Your task to perform on an android device: turn on bluetooth scan Image 0: 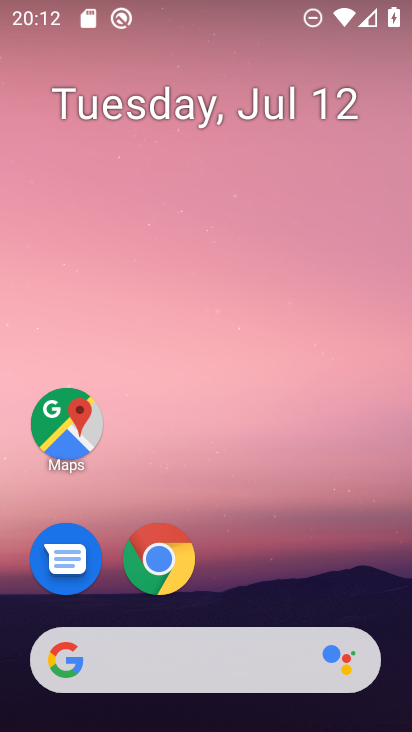
Step 0: drag from (390, 583) to (380, 183)
Your task to perform on an android device: turn on bluetooth scan Image 1: 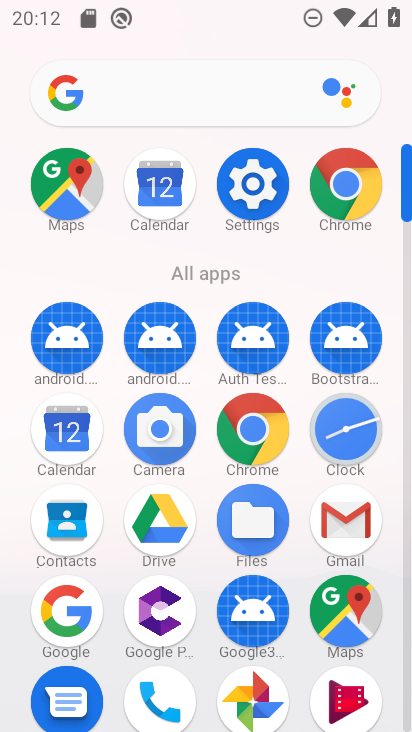
Step 1: click (262, 193)
Your task to perform on an android device: turn on bluetooth scan Image 2: 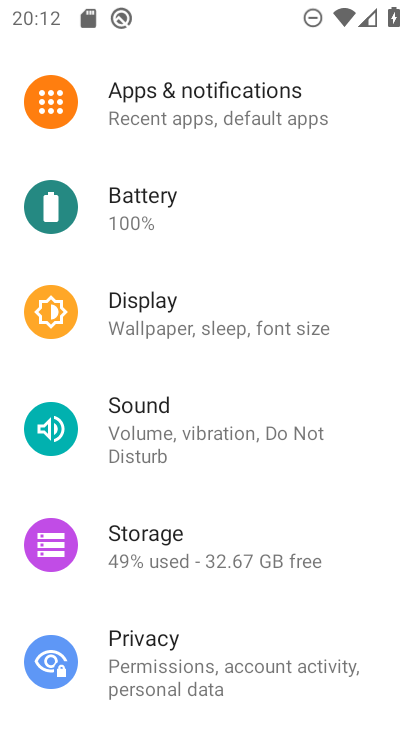
Step 2: drag from (346, 233) to (341, 351)
Your task to perform on an android device: turn on bluetooth scan Image 3: 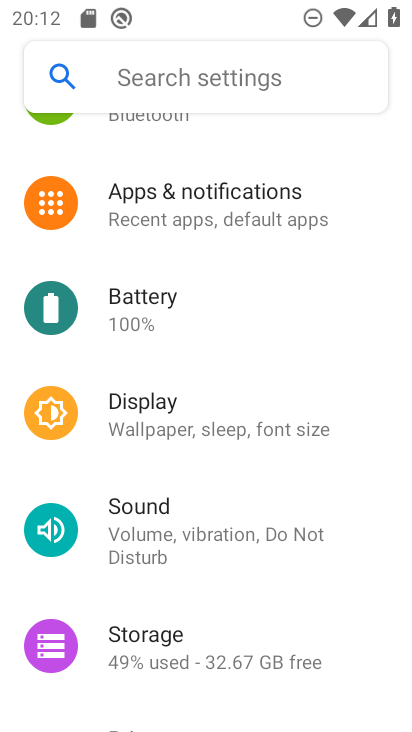
Step 3: drag from (356, 208) to (357, 319)
Your task to perform on an android device: turn on bluetooth scan Image 4: 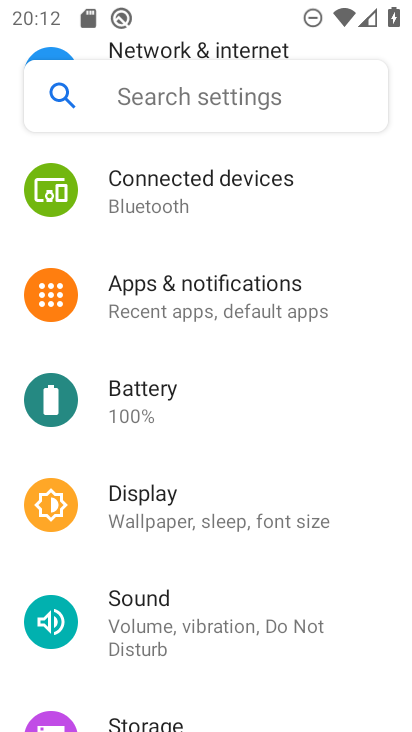
Step 4: drag from (358, 237) to (350, 356)
Your task to perform on an android device: turn on bluetooth scan Image 5: 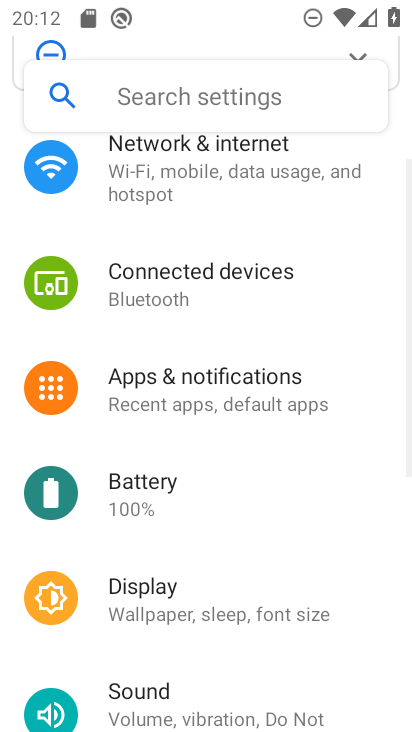
Step 5: drag from (345, 256) to (332, 460)
Your task to perform on an android device: turn on bluetooth scan Image 6: 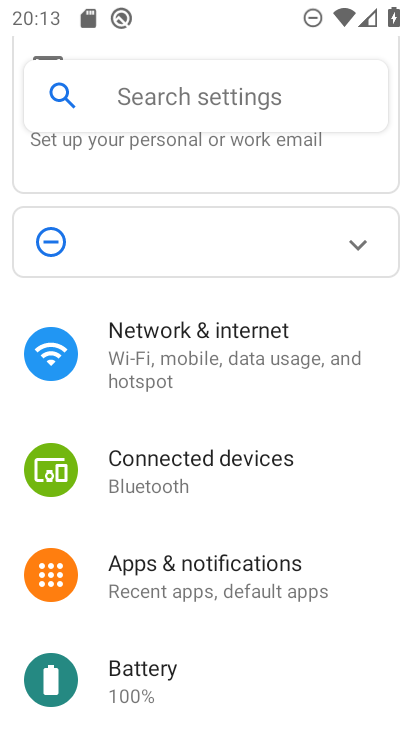
Step 6: drag from (353, 570) to (352, 422)
Your task to perform on an android device: turn on bluetooth scan Image 7: 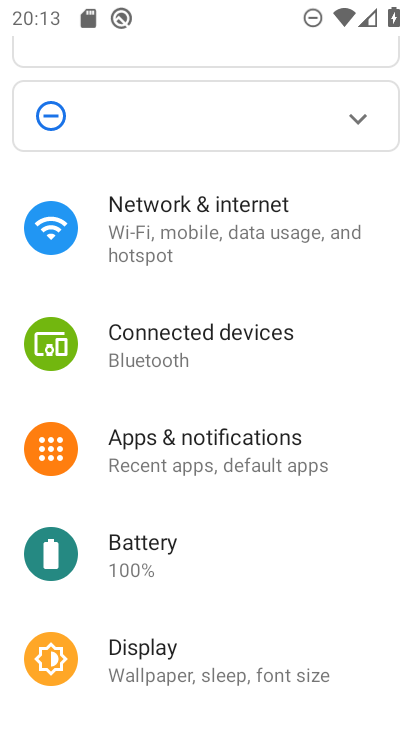
Step 7: drag from (352, 532) to (353, 411)
Your task to perform on an android device: turn on bluetooth scan Image 8: 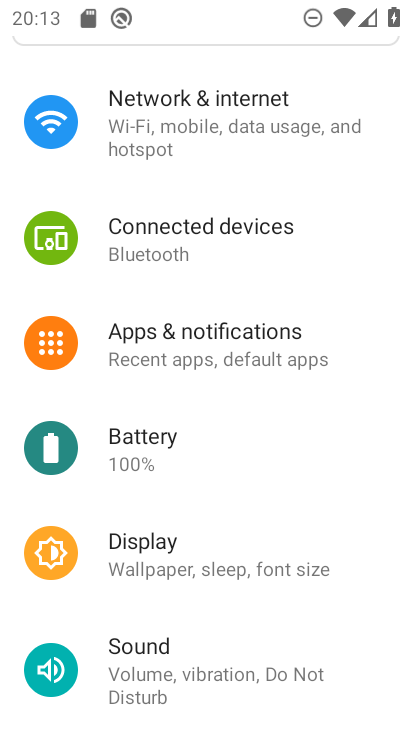
Step 8: drag from (356, 573) to (360, 440)
Your task to perform on an android device: turn on bluetooth scan Image 9: 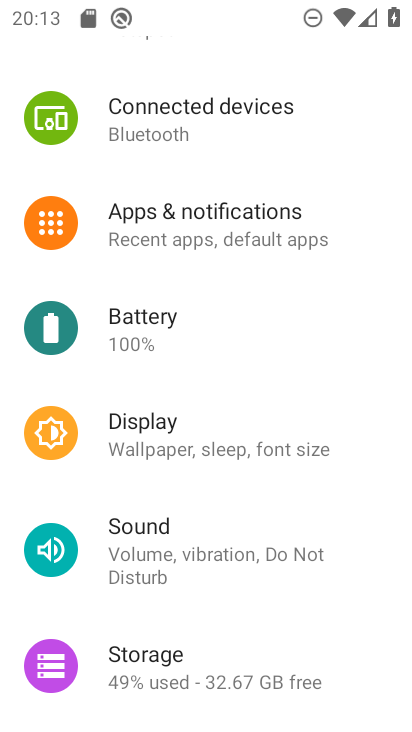
Step 9: drag from (358, 575) to (367, 435)
Your task to perform on an android device: turn on bluetooth scan Image 10: 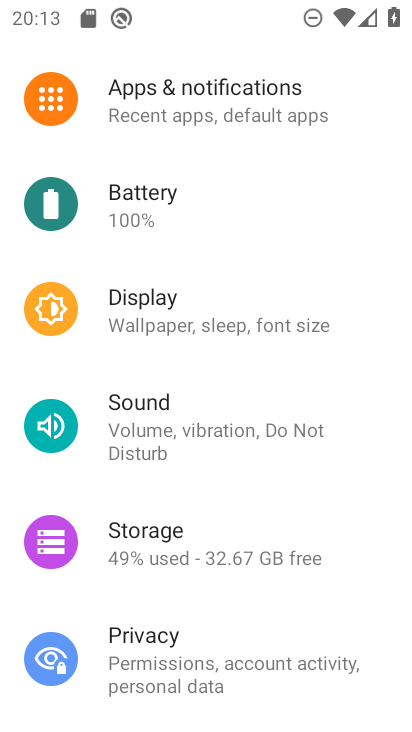
Step 10: drag from (362, 568) to (364, 432)
Your task to perform on an android device: turn on bluetooth scan Image 11: 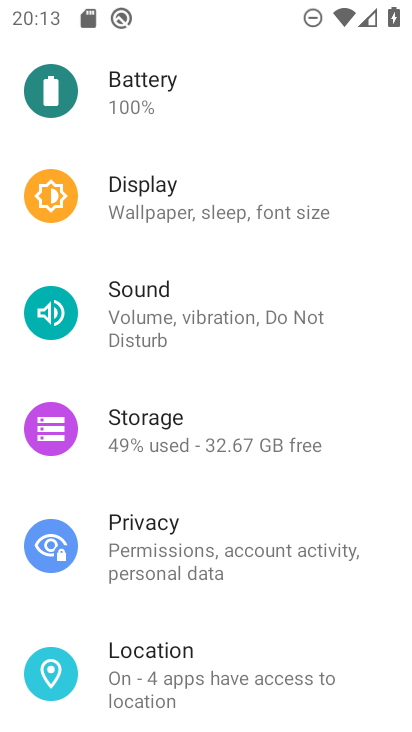
Step 11: drag from (348, 600) to (357, 425)
Your task to perform on an android device: turn on bluetooth scan Image 12: 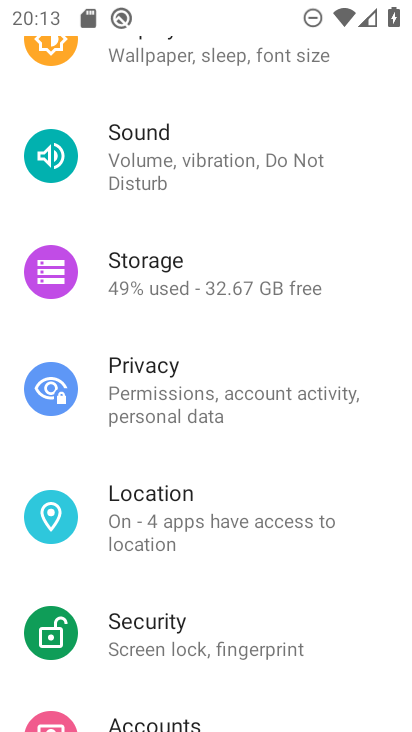
Step 12: click (330, 523)
Your task to perform on an android device: turn on bluetooth scan Image 13: 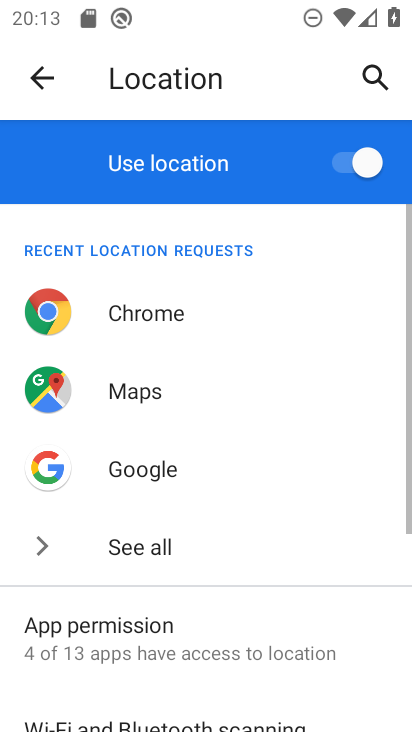
Step 13: drag from (338, 605) to (341, 331)
Your task to perform on an android device: turn on bluetooth scan Image 14: 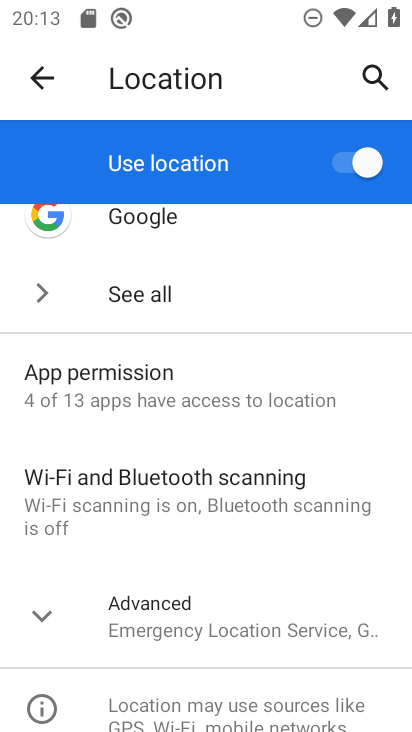
Step 14: click (340, 500)
Your task to perform on an android device: turn on bluetooth scan Image 15: 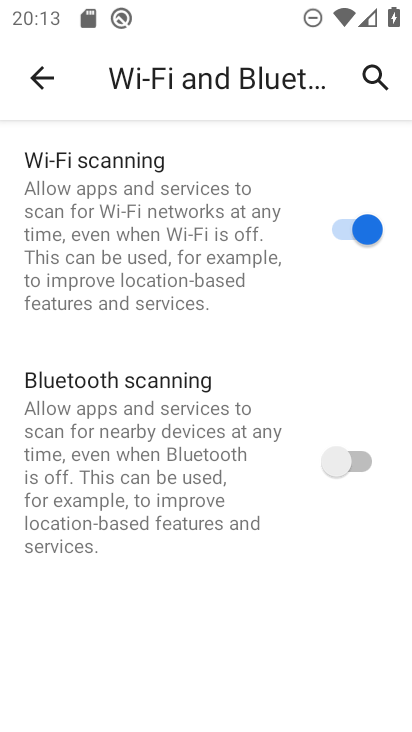
Step 15: click (344, 470)
Your task to perform on an android device: turn on bluetooth scan Image 16: 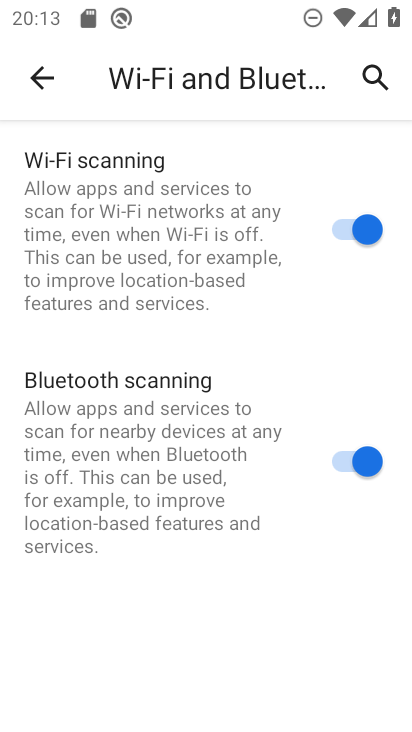
Step 16: task complete